Your task to perform on an android device: change the clock display to analog Image 0: 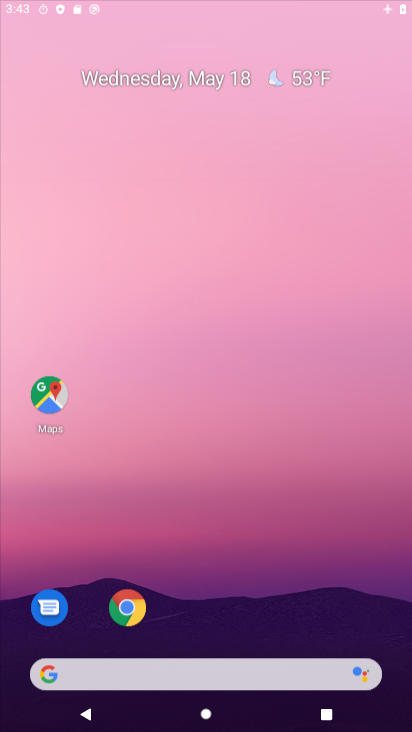
Step 0: press home button
Your task to perform on an android device: change the clock display to analog Image 1: 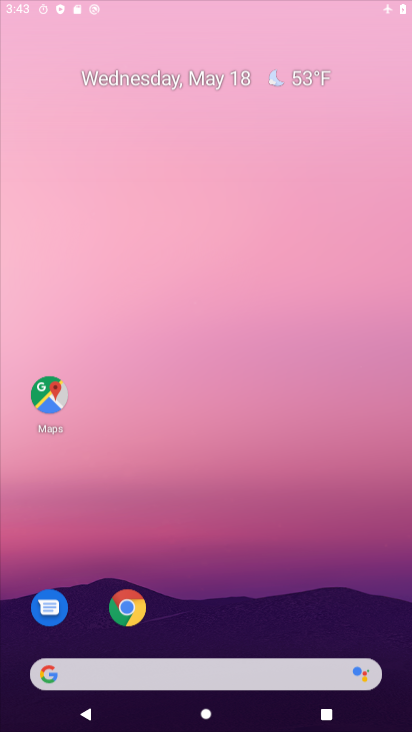
Step 1: click (288, 173)
Your task to perform on an android device: change the clock display to analog Image 2: 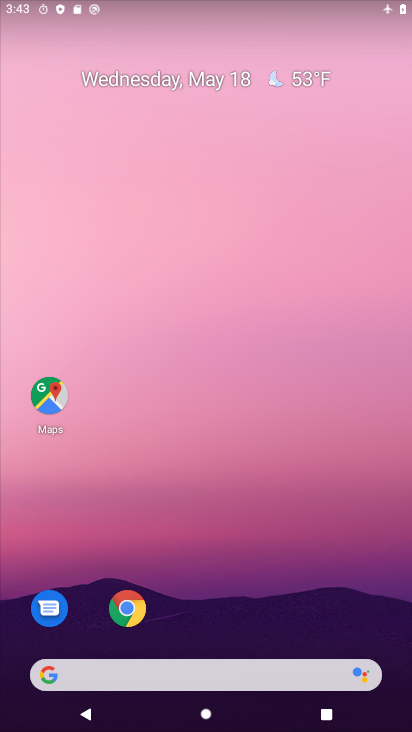
Step 2: drag from (331, 690) to (322, 7)
Your task to perform on an android device: change the clock display to analog Image 3: 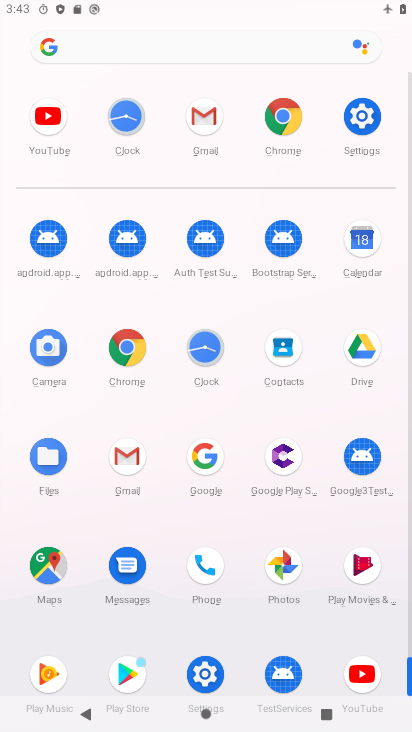
Step 3: click (354, 126)
Your task to perform on an android device: change the clock display to analog Image 4: 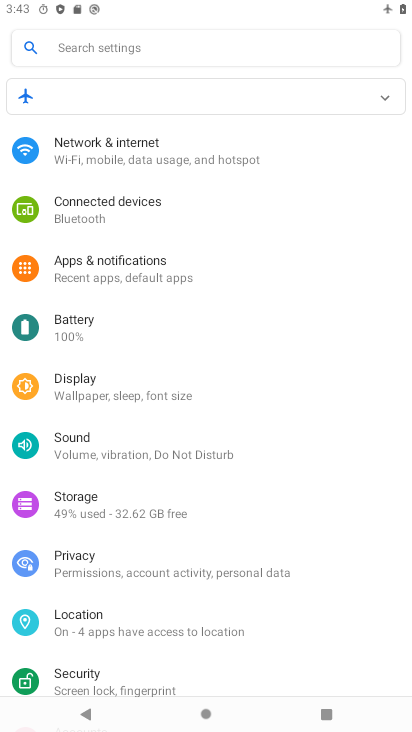
Step 4: press home button
Your task to perform on an android device: change the clock display to analog Image 5: 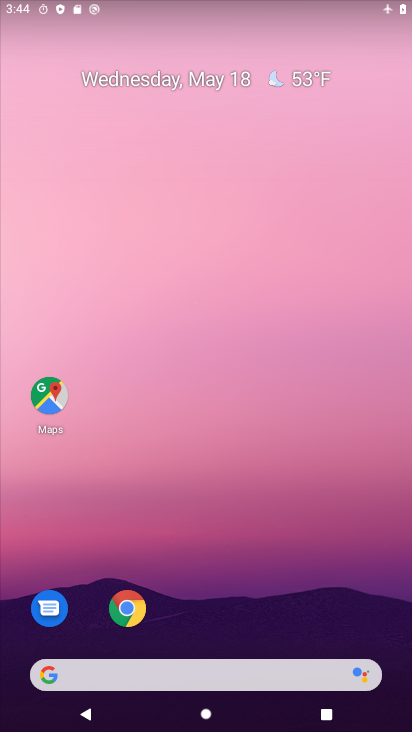
Step 5: drag from (147, 691) to (209, 47)
Your task to perform on an android device: change the clock display to analog Image 6: 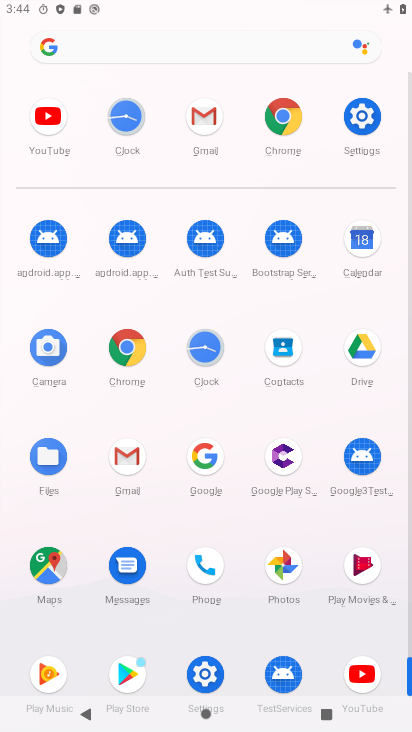
Step 6: click (209, 360)
Your task to perform on an android device: change the clock display to analog Image 7: 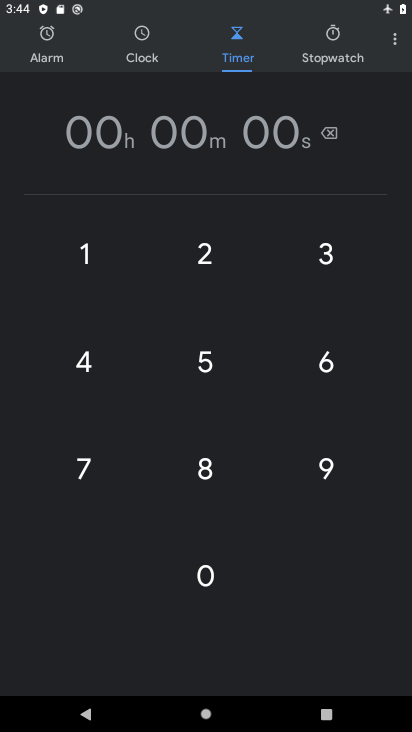
Step 7: click (395, 43)
Your task to perform on an android device: change the clock display to analog Image 8: 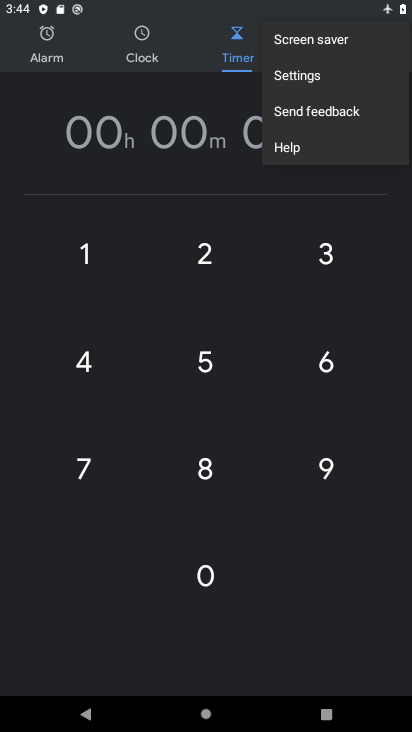
Step 8: click (315, 73)
Your task to perform on an android device: change the clock display to analog Image 9: 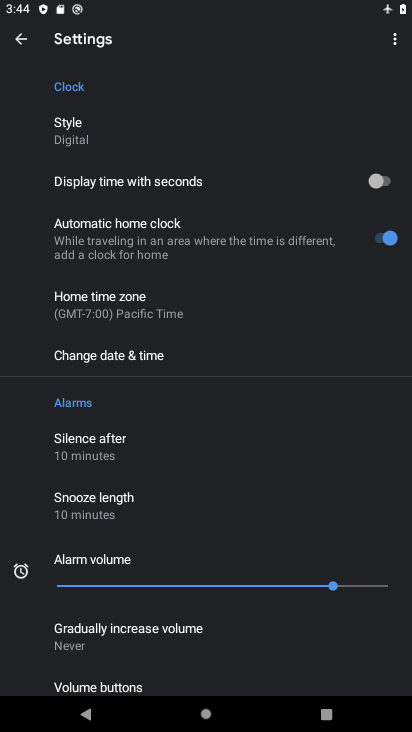
Step 9: click (151, 116)
Your task to perform on an android device: change the clock display to analog Image 10: 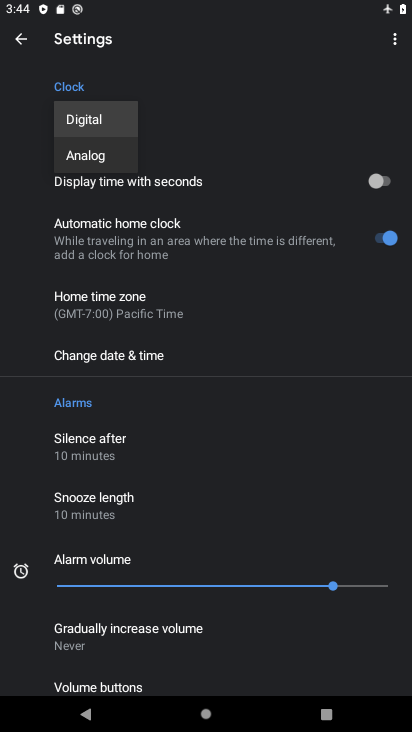
Step 10: click (129, 163)
Your task to perform on an android device: change the clock display to analog Image 11: 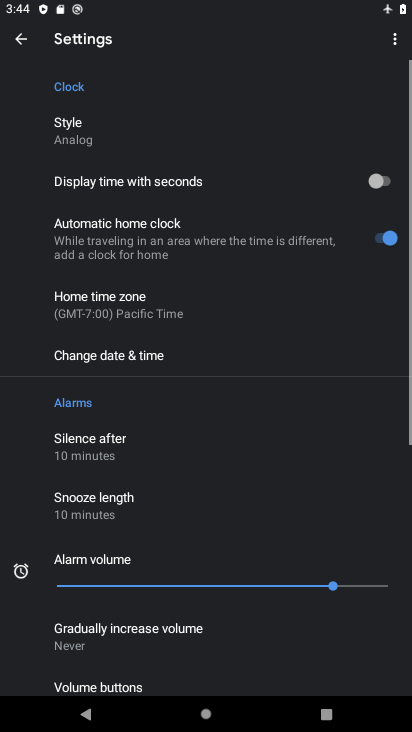
Step 11: task complete